Your task to perform on an android device: Search for "bose quietcomfort 35" on bestbuy, select the first entry, add it to the cart, then select checkout. Image 0: 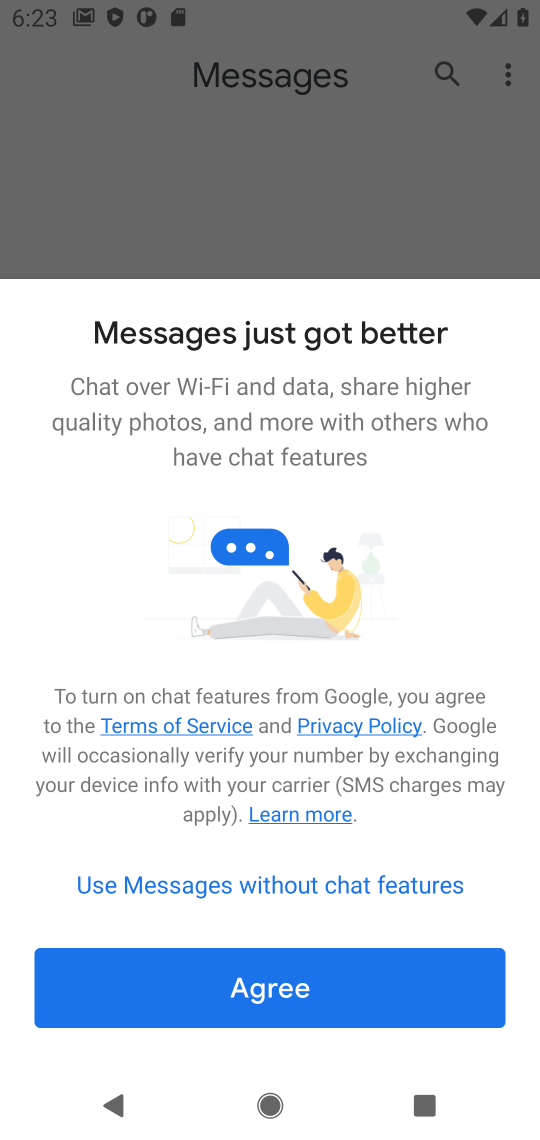
Step 0: press home button
Your task to perform on an android device: Search for "bose quietcomfort 35" on bestbuy, select the first entry, add it to the cart, then select checkout. Image 1: 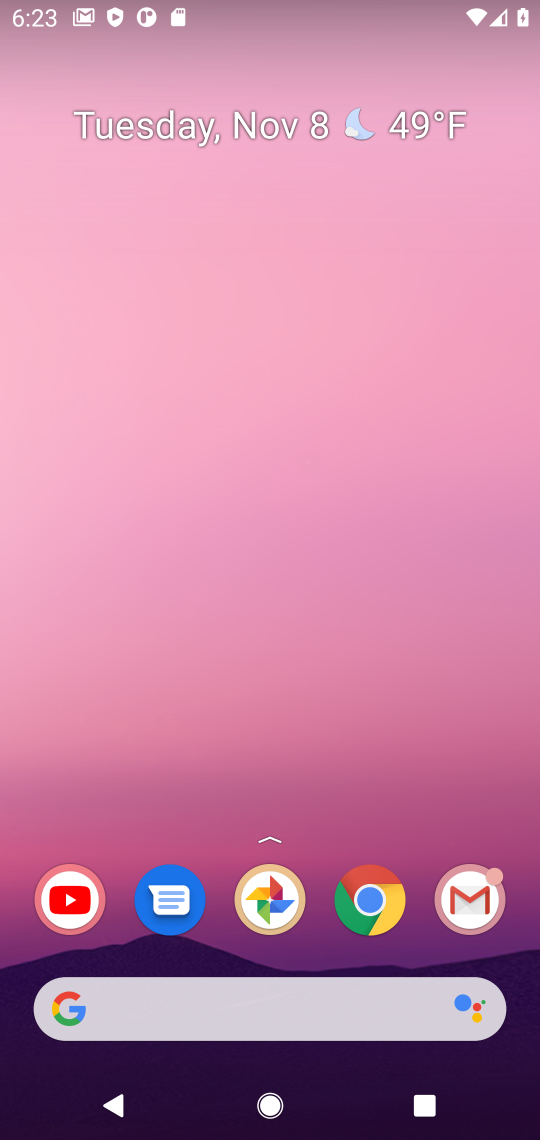
Step 1: click (371, 926)
Your task to perform on an android device: Search for "bose quietcomfort 35" on bestbuy, select the first entry, add it to the cart, then select checkout. Image 2: 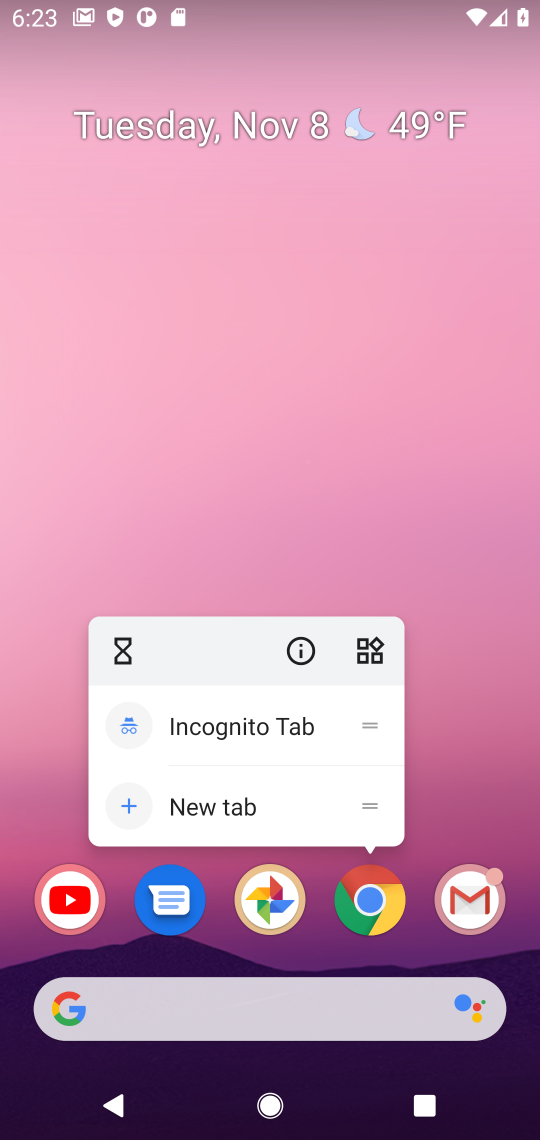
Step 2: click (399, 907)
Your task to perform on an android device: Search for "bose quietcomfort 35" on bestbuy, select the first entry, add it to the cart, then select checkout. Image 3: 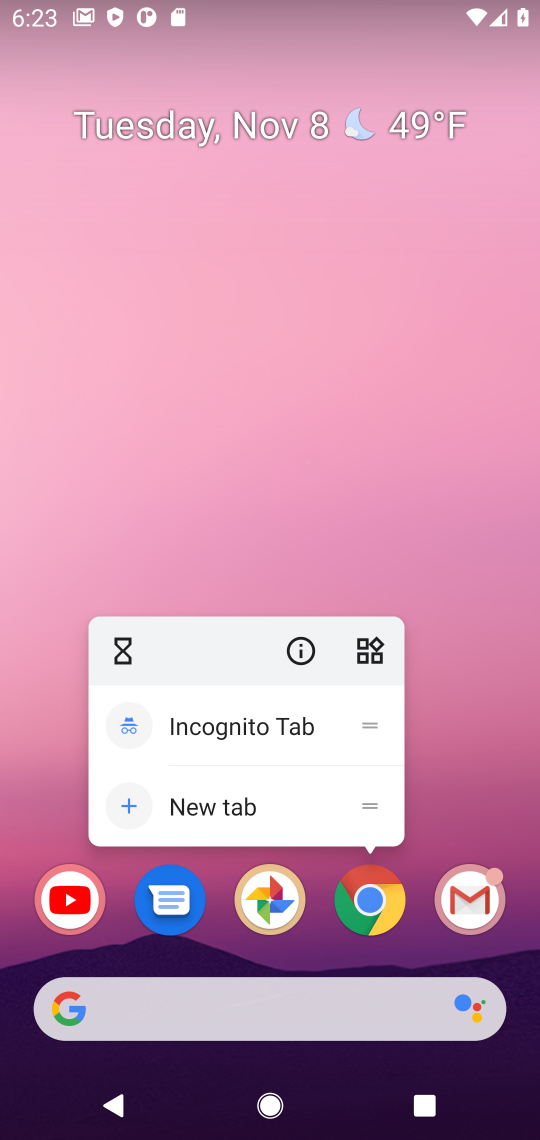
Step 3: click (377, 928)
Your task to perform on an android device: Search for "bose quietcomfort 35" on bestbuy, select the first entry, add it to the cart, then select checkout. Image 4: 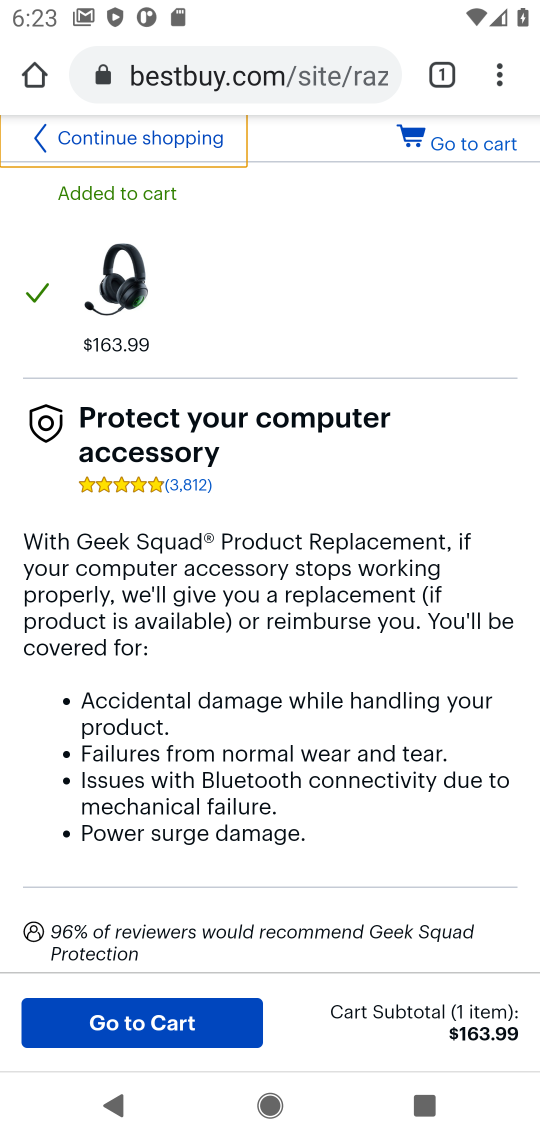
Step 4: click (296, 81)
Your task to perform on an android device: Search for "bose quietcomfort 35" on bestbuy, select the first entry, add it to the cart, then select checkout. Image 5: 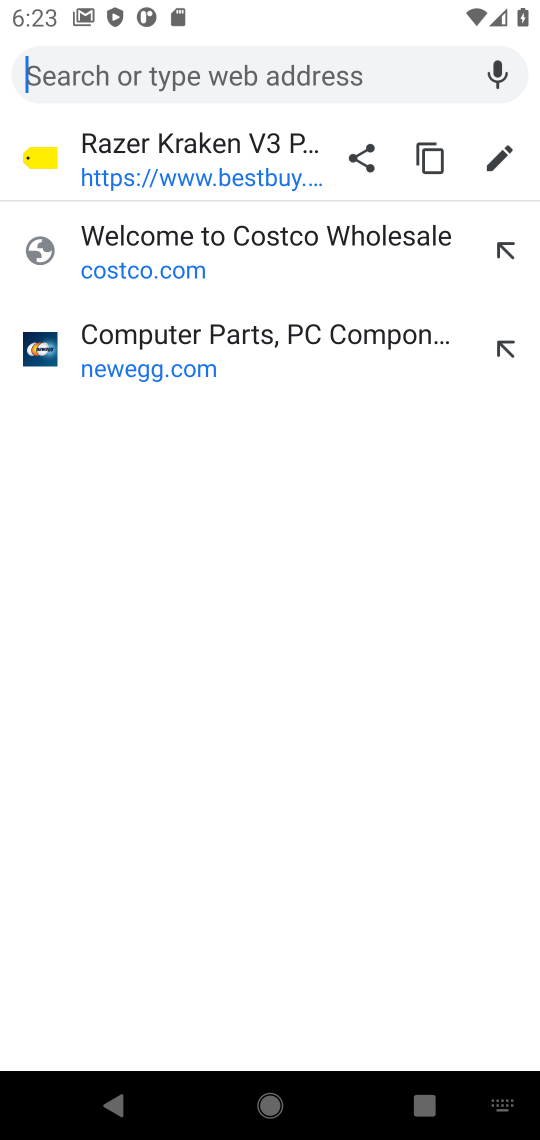
Step 5: type "bestbuy"
Your task to perform on an android device: Search for "bose quietcomfort 35" on bestbuy, select the first entry, add it to the cart, then select checkout. Image 6: 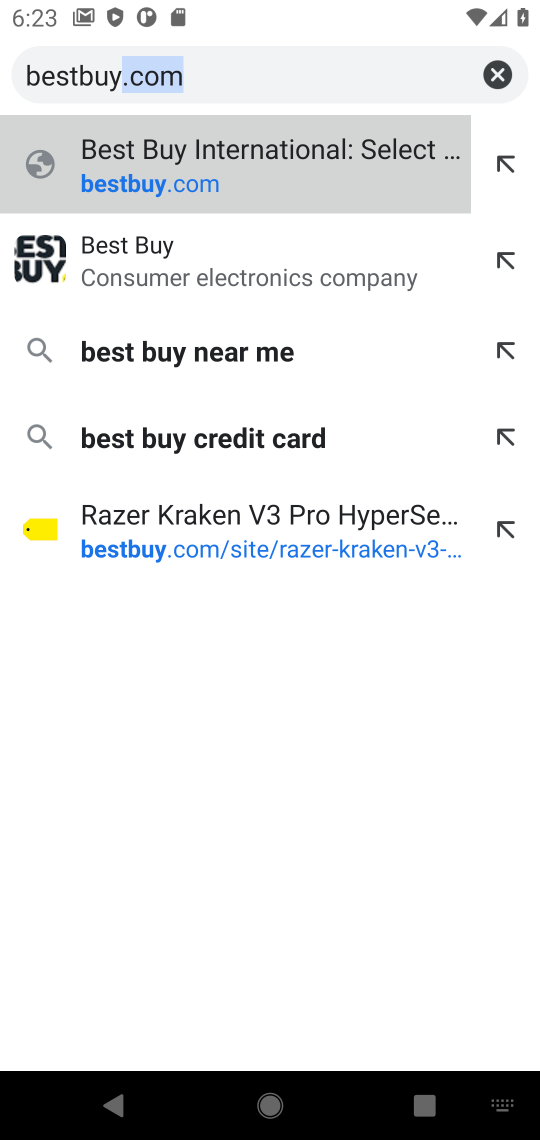
Step 6: press enter
Your task to perform on an android device: Search for "bose quietcomfort 35" on bestbuy, select the first entry, add it to the cart, then select checkout. Image 7: 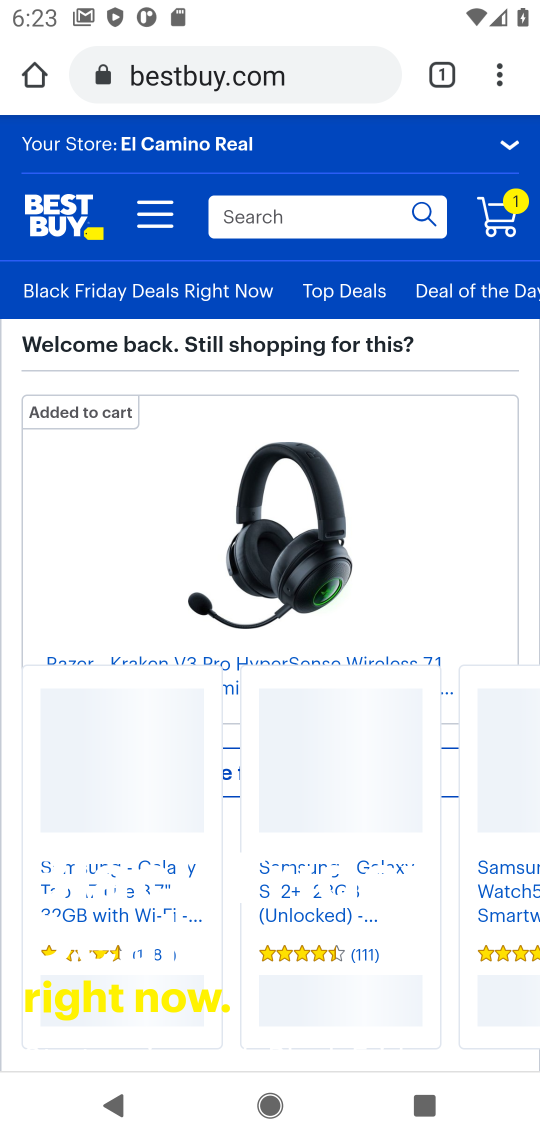
Step 7: click (330, 209)
Your task to perform on an android device: Search for "bose quietcomfort 35" on bestbuy, select the first entry, add it to the cart, then select checkout. Image 8: 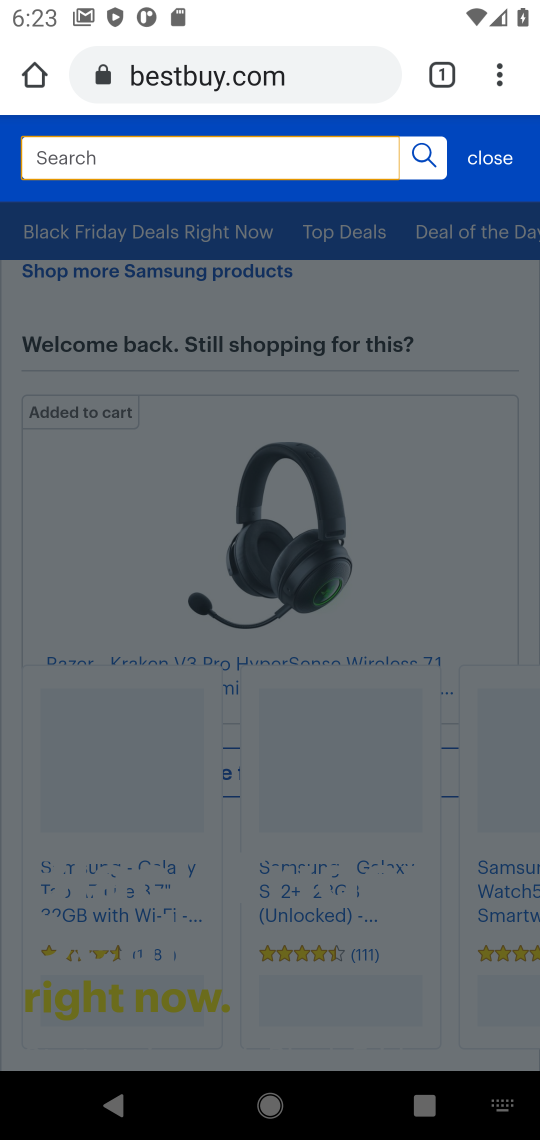
Step 8: type "bose quietcomfort 35"
Your task to perform on an android device: Search for "bose quietcomfort 35" on bestbuy, select the first entry, add it to the cart, then select checkout. Image 9: 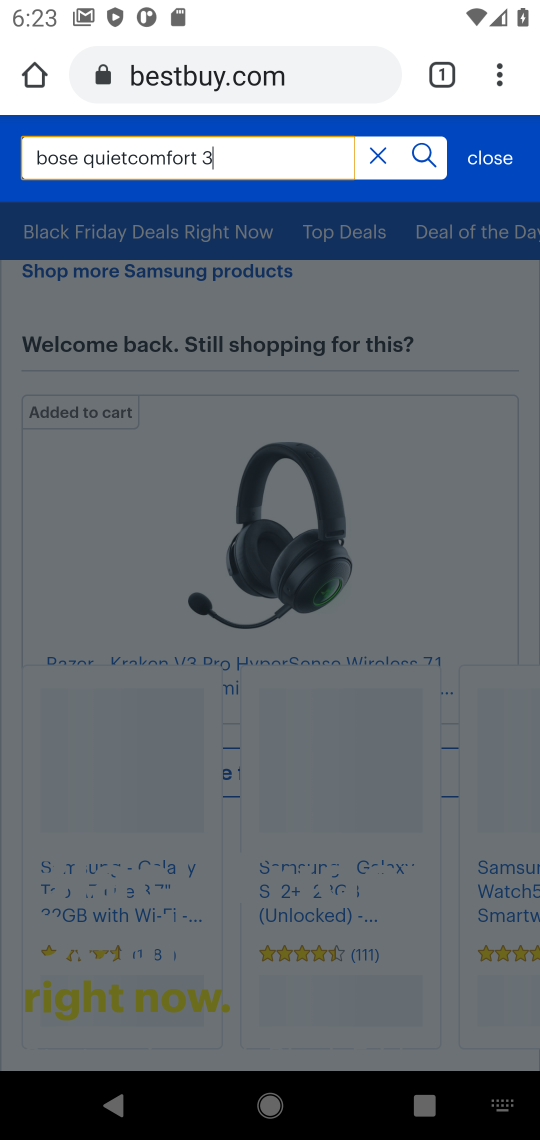
Step 9: type ""
Your task to perform on an android device: Search for "bose quietcomfort 35" on bestbuy, select the first entry, add it to the cart, then select checkout. Image 10: 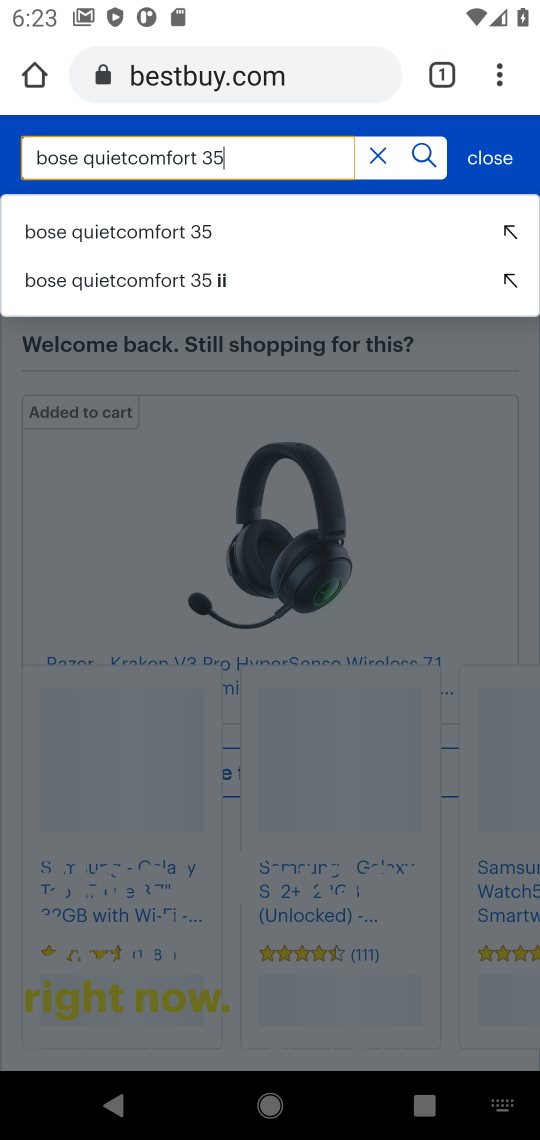
Step 10: press enter
Your task to perform on an android device: Search for "bose quietcomfort 35" on bestbuy, select the first entry, add it to the cart, then select checkout. Image 11: 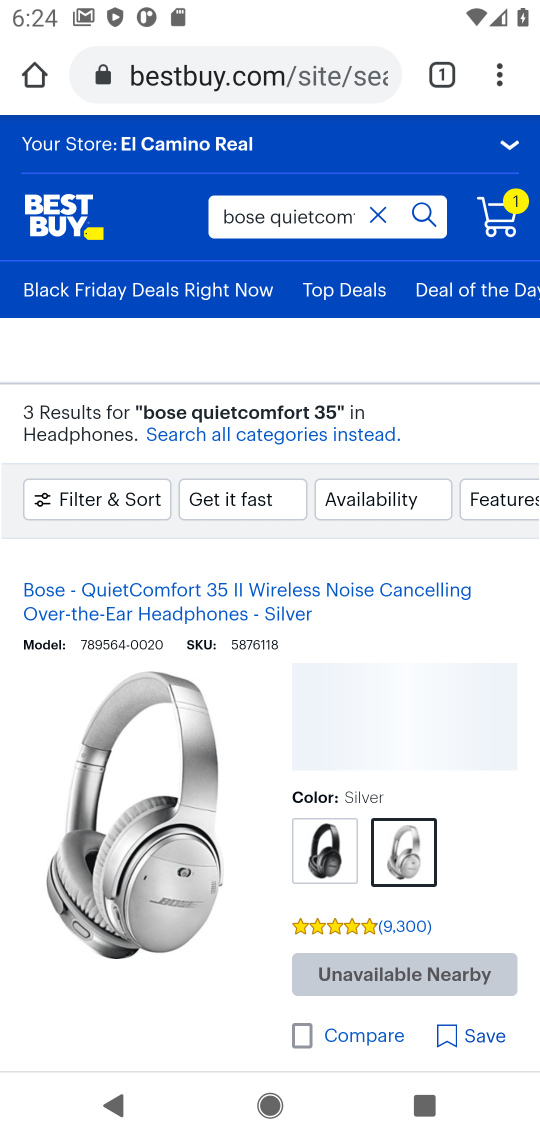
Step 11: task complete